Your task to perform on an android device: Open Chrome and go to settings Image 0: 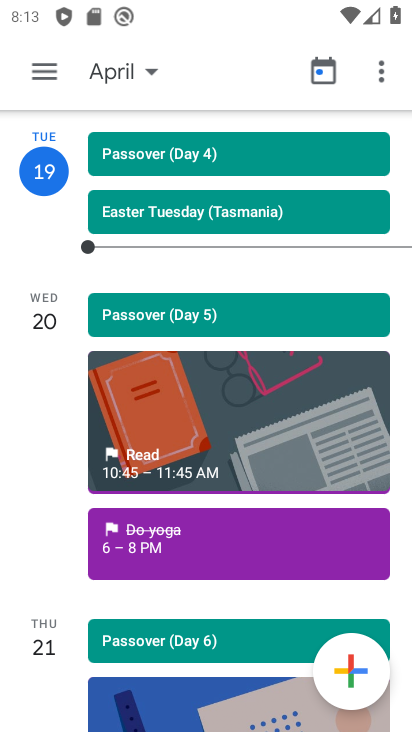
Step 0: press home button
Your task to perform on an android device: Open Chrome and go to settings Image 1: 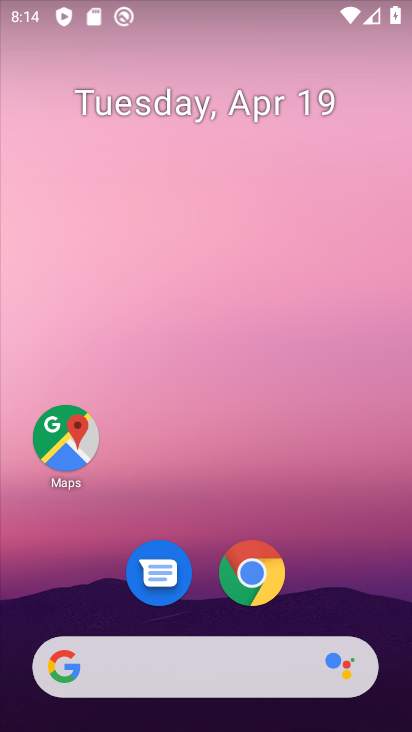
Step 1: click (249, 569)
Your task to perform on an android device: Open Chrome and go to settings Image 2: 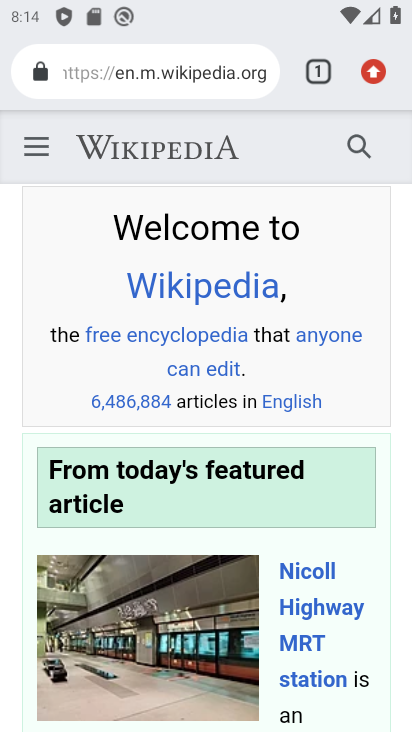
Step 2: click (370, 75)
Your task to perform on an android device: Open Chrome and go to settings Image 3: 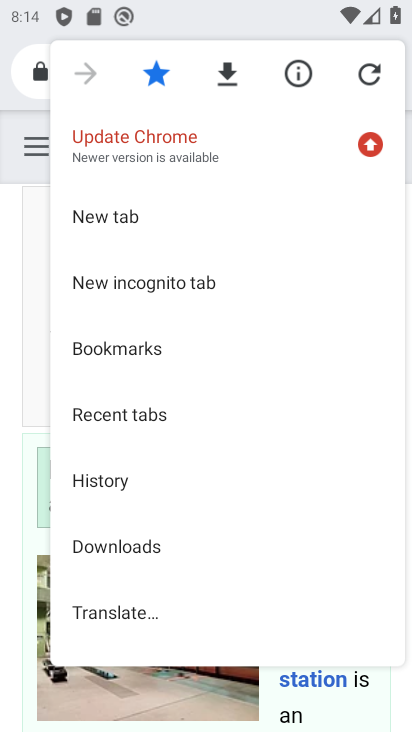
Step 3: drag from (197, 340) to (169, 166)
Your task to perform on an android device: Open Chrome and go to settings Image 4: 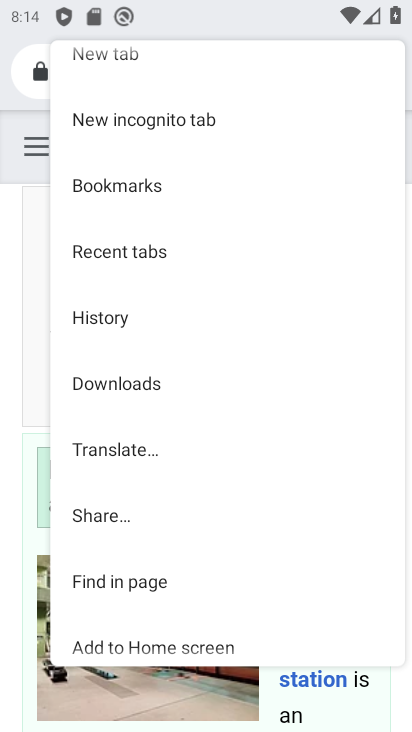
Step 4: drag from (185, 504) to (209, 147)
Your task to perform on an android device: Open Chrome and go to settings Image 5: 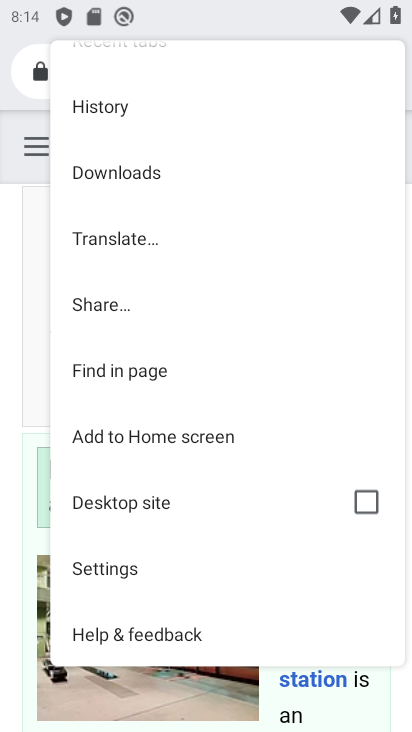
Step 5: click (115, 558)
Your task to perform on an android device: Open Chrome and go to settings Image 6: 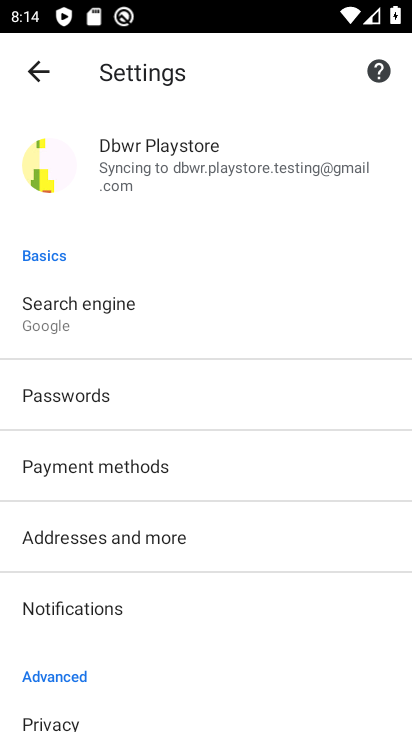
Step 6: task complete